Your task to perform on an android device: change notification settings in the gmail app Image 0: 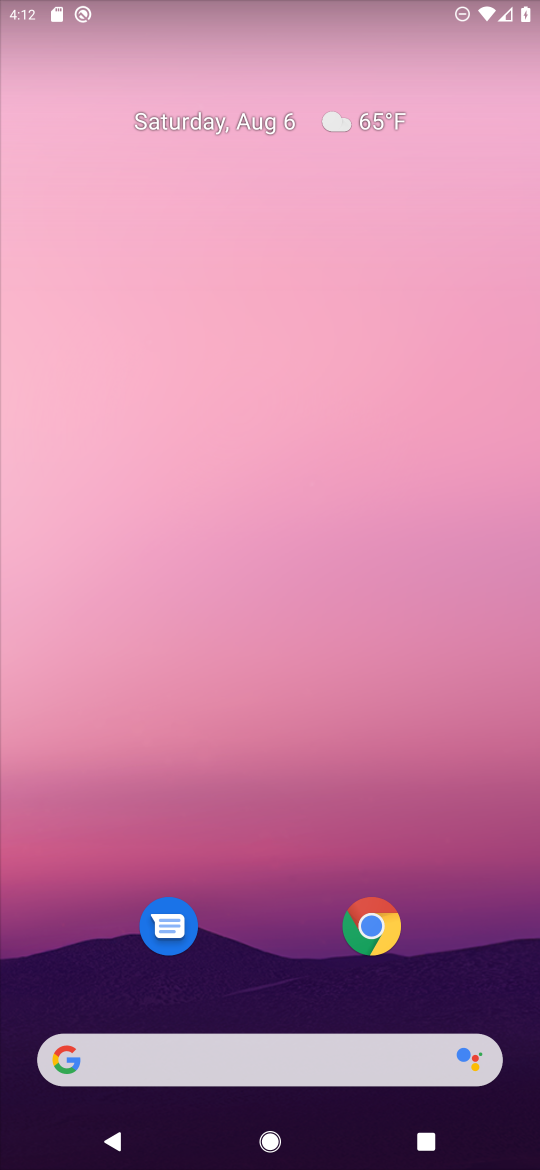
Step 0: drag from (244, 946) to (223, 381)
Your task to perform on an android device: change notification settings in the gmail app Image 1: 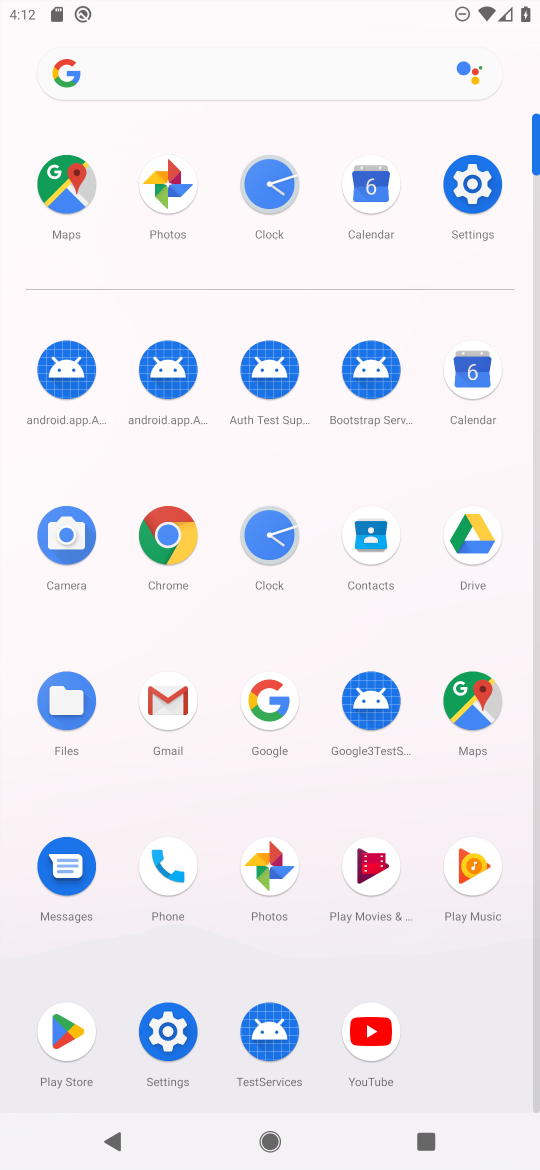
Step 1: click (184, 704)
Your task to perform on an android device: change notification settings in the gmail app Image 2: 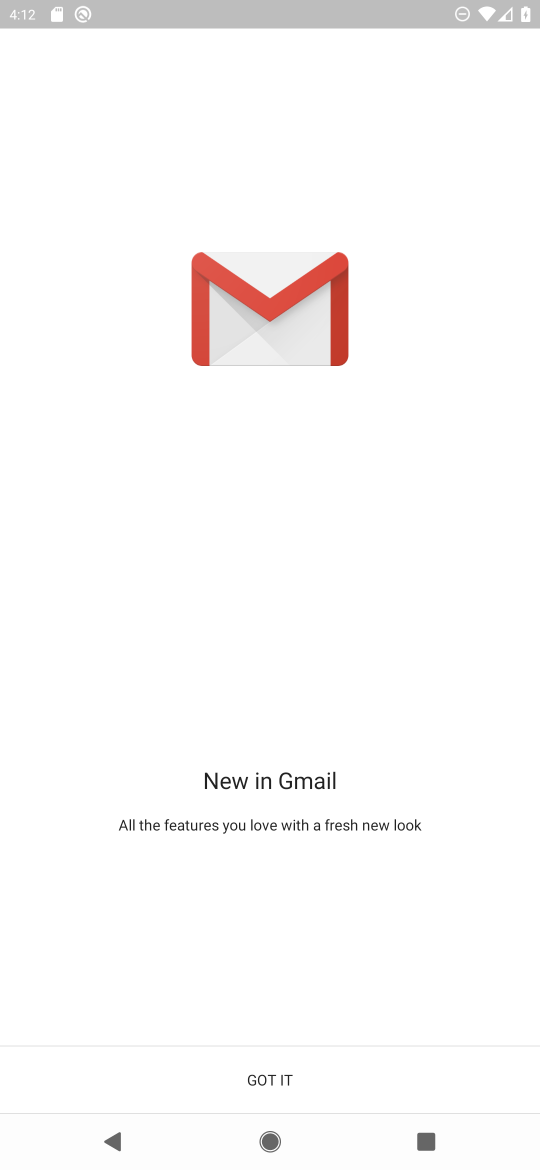
Step 2: click (309, 1080)
Your task to perform on an android device: change notification settings in the gmail app Image 3: 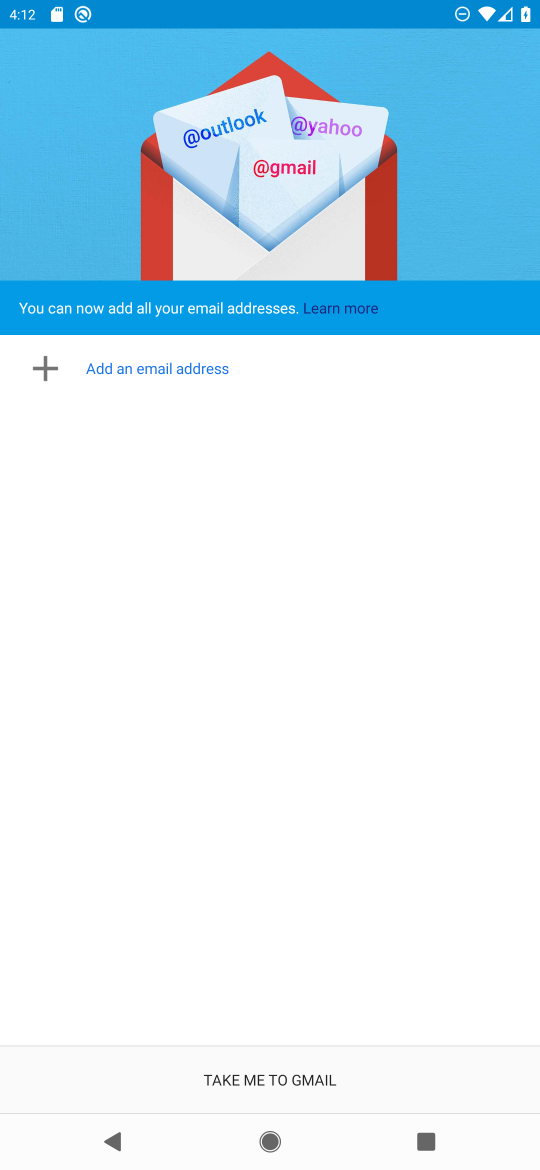
Step 3: click (309, 1080)
Your task to perform on an android device: change notification settings in the gmail app Image 4: 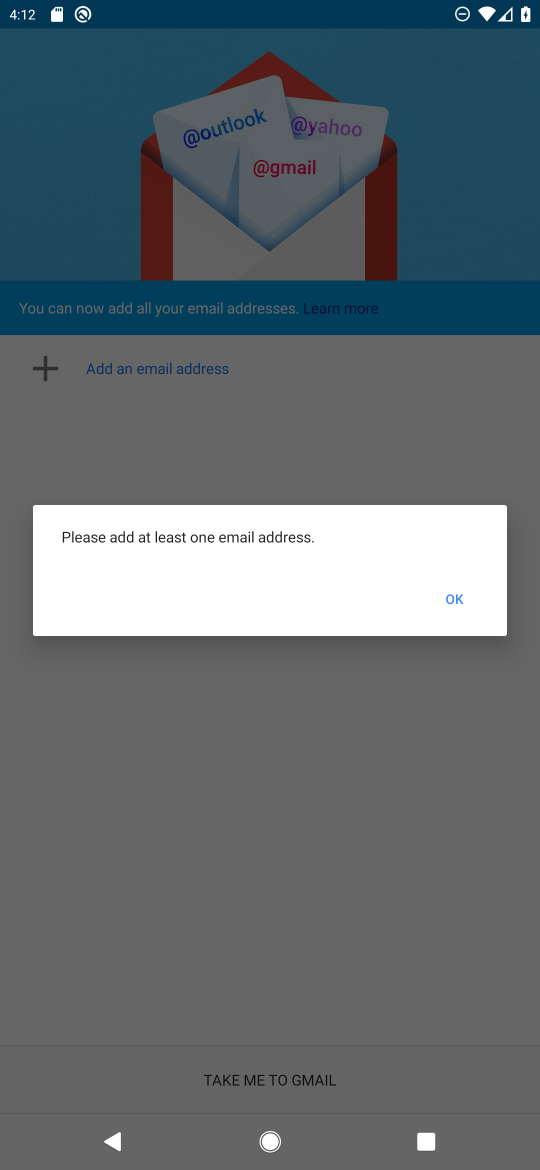
Step 4: click (443, 589)
Your task to perform on an android device: change notification settings in the gmail app Image 5: 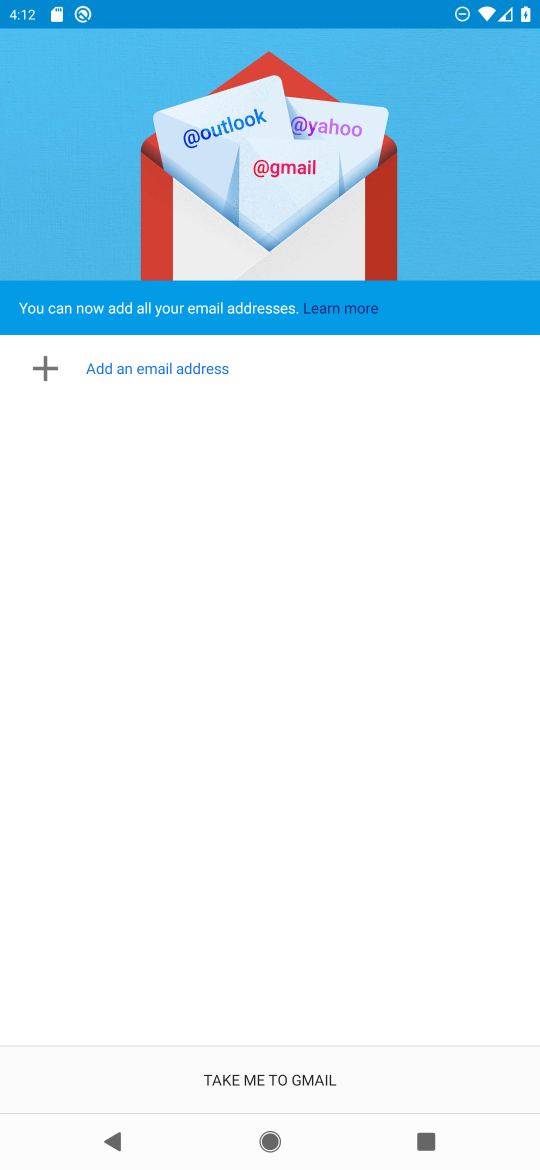
Step 5: task complete